Your task to perform on an android device: toggle notifications settings in the gmail app Image 0: 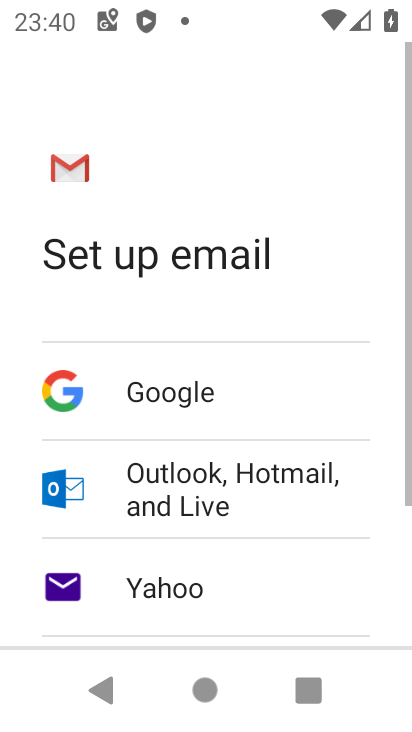
Step 0: task impossible